Your task to perform on an android device: Open sound settings Image 0: 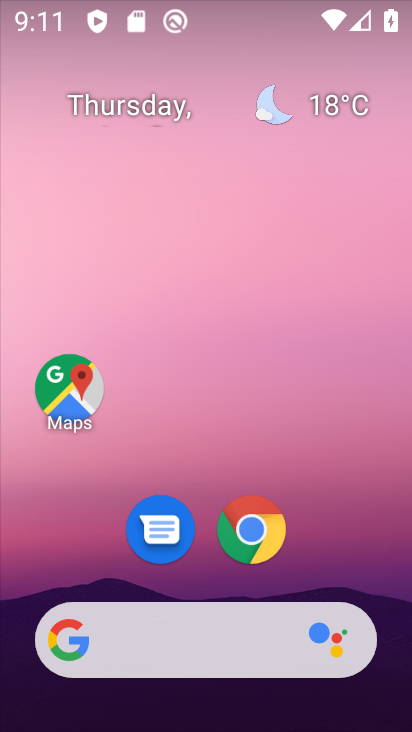
Step 0: drag from (404, 703) to (343, 176)
Your task to perform on an android device: Open sound settings Image 1: 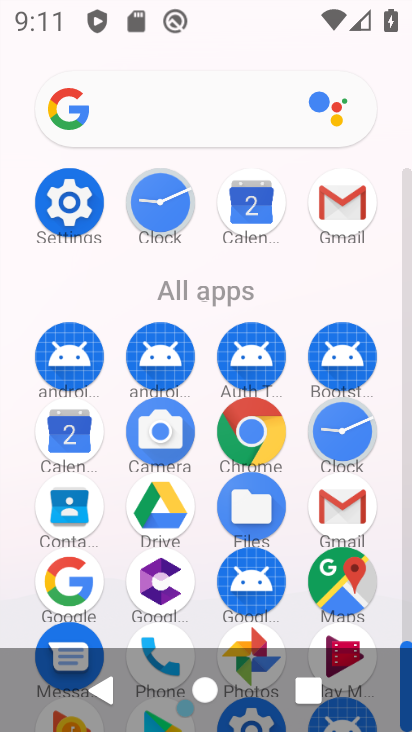
Step 1: click (79, 184)
Your task to perform on an android device: Open sound settings Image 2: 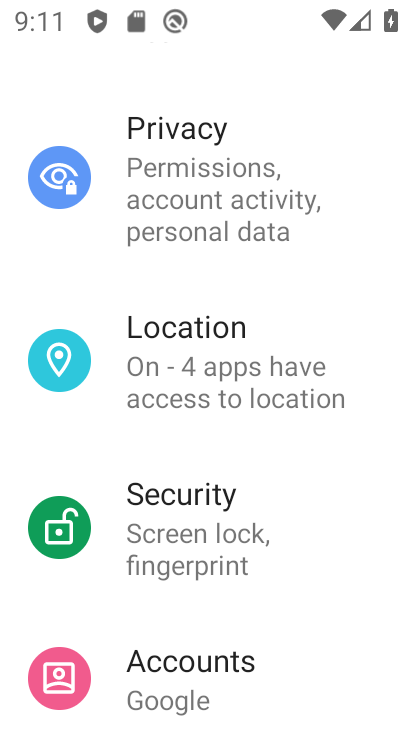
Step 2: drag from (238, 152) to (282, 702)
Your task to perform on an android device: Open sound settings Image 3: 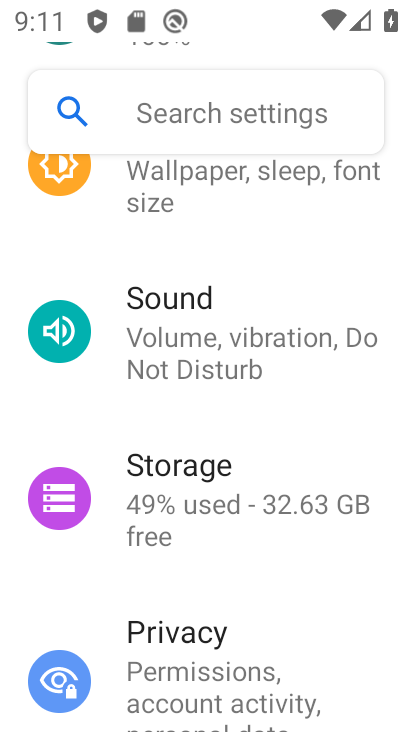
Step 3: click (180, 323)
Your task to perform on an android device: Open sound settings Image 4: 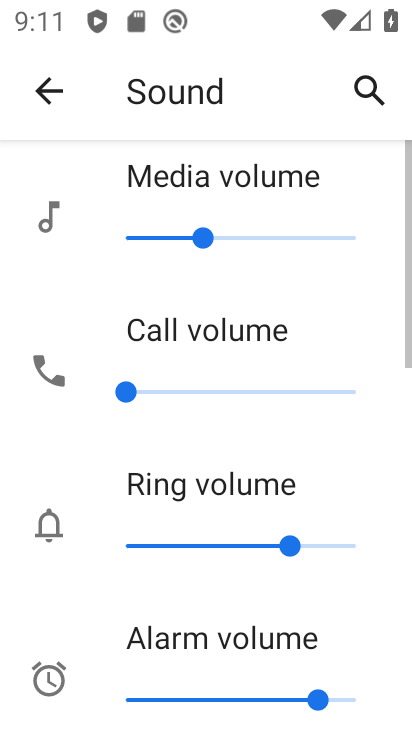
Step 4: task complete